Your task to perform on an android device: turn off location Image 0: 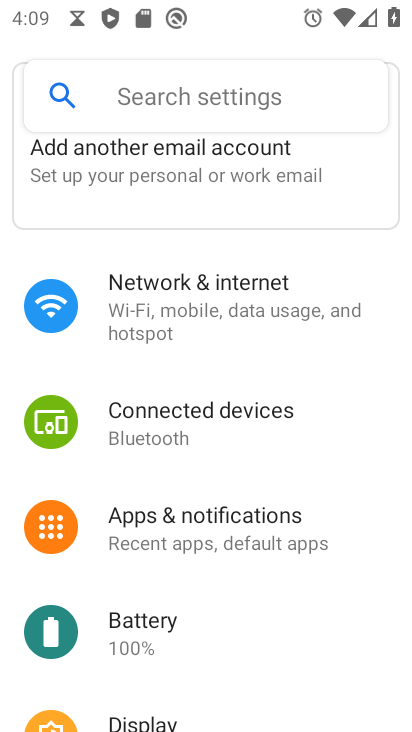
Step 0: drag from (233, 585) to (212, 0)
Your task to perform on an android device: turn off location Image 1: 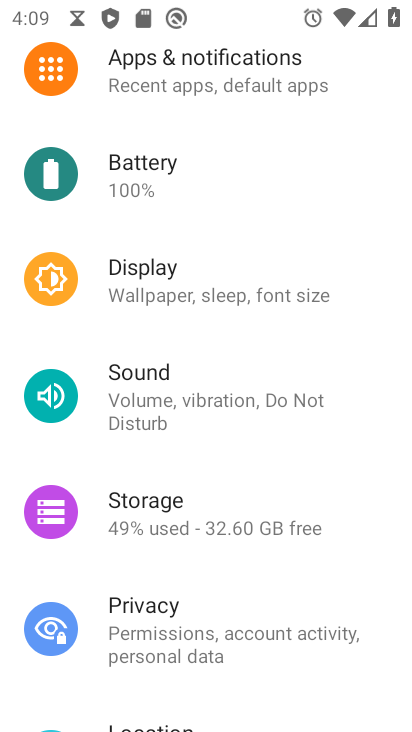
Step 1: drag from (224, 457) to (177, 84)
Your task to perform on an android device: turn off location Image 2: 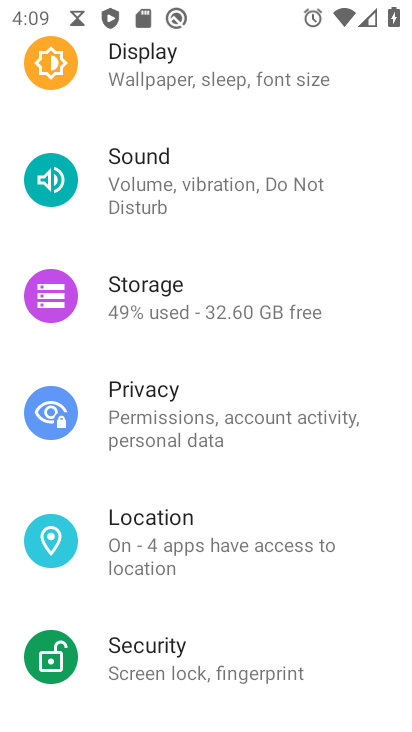
Step 2: click (198, 538)
Your task to perform on an android device: turn off location Image 3: 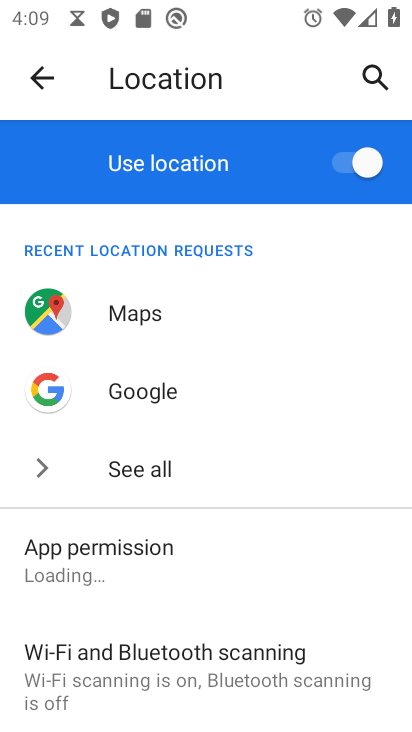
Step 3: click (351, 151)
Your task to perform on an android device: turn off location Image 4: 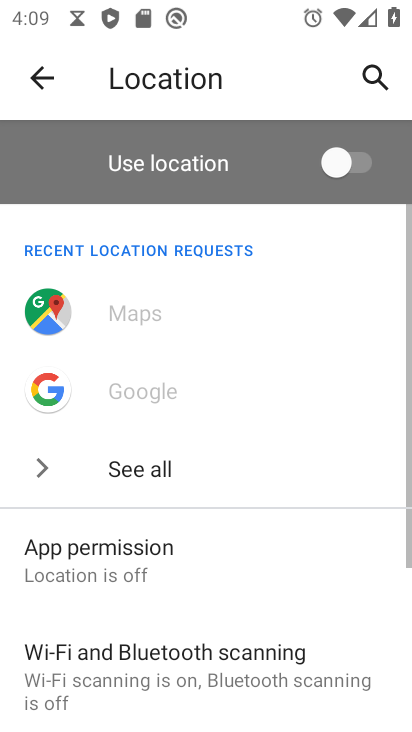
Step 4: task complete